Your task to perform on an android device: Open calendar and show me the third week of next month Image 0: 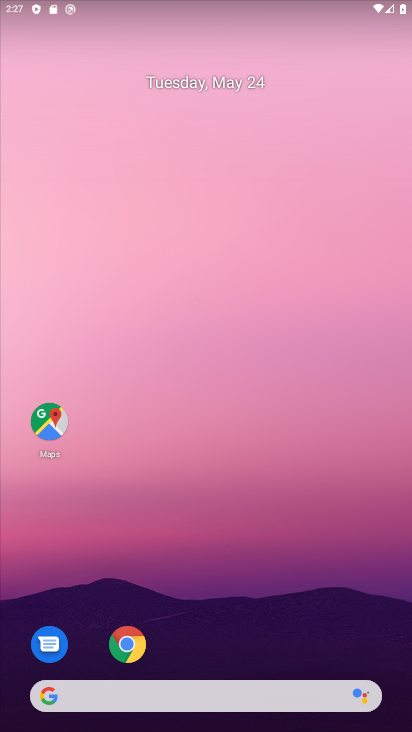
Step 0: drag from (206, 632) to (227, 117)
Your task to perform on an android device: Open calendar and show me the third week of next month Image 1: 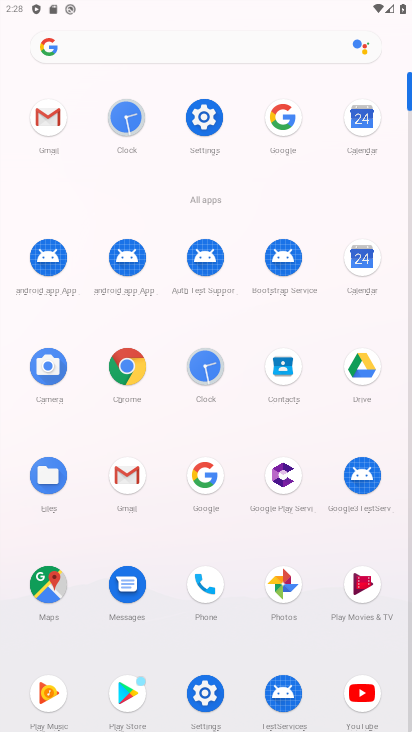
Step 1: click (363, 257)
Your task to perform on an android device: Open calendar and show me the third week of next month Image 2: 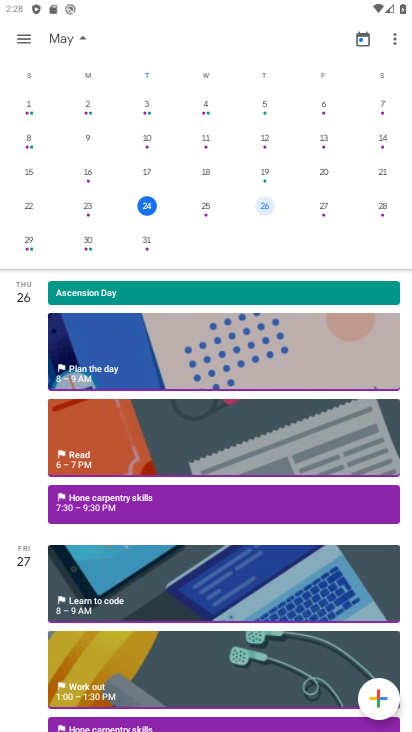
Step 2: drag from (365, 248) to (0, 224)
Your task to perform on an android device: Open calendar and show me the third week of next month Image 3: 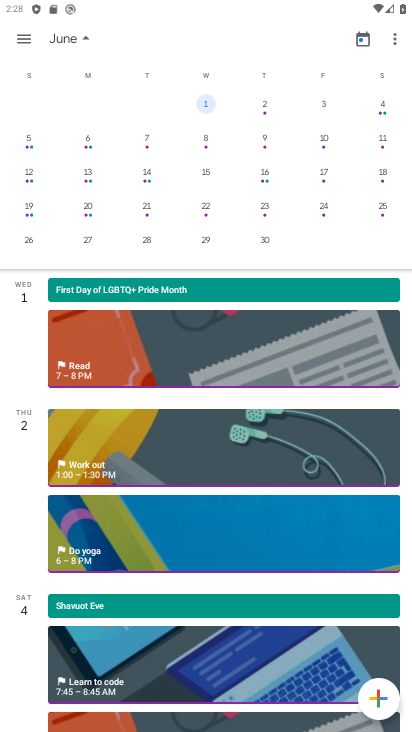
Step 3: click (206, 175)
Your task to perform on an android device: Open calendar and show me the third week of next month Image 4: 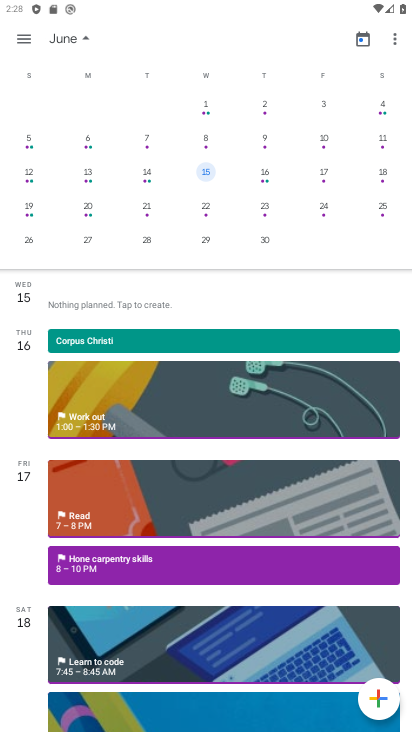
Step 4: task complete